Your task to perform on an android device: open a new tab in the chrome app Image 0: 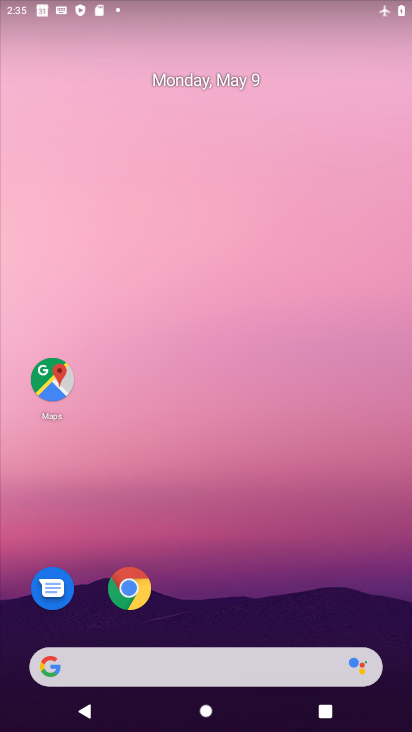
Step 0: drag from (347, 595) to (255, 94)
Your task to perform on an android device: open a new tab in the chrome app Image 1: 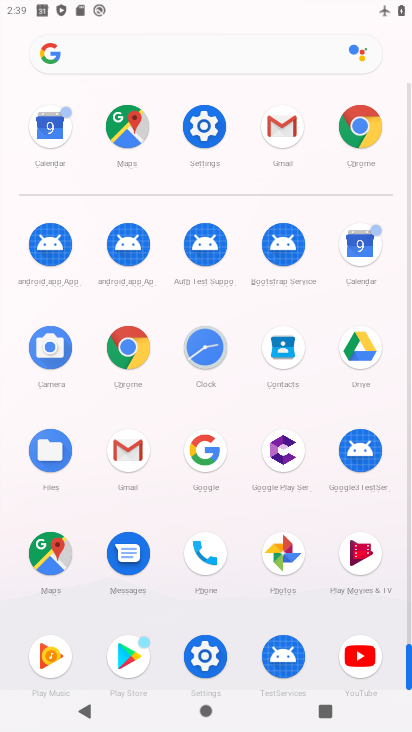
Step 1: click (374, 125)
Your task to perform on an android device: open a new tab in the chrome app Image 2: 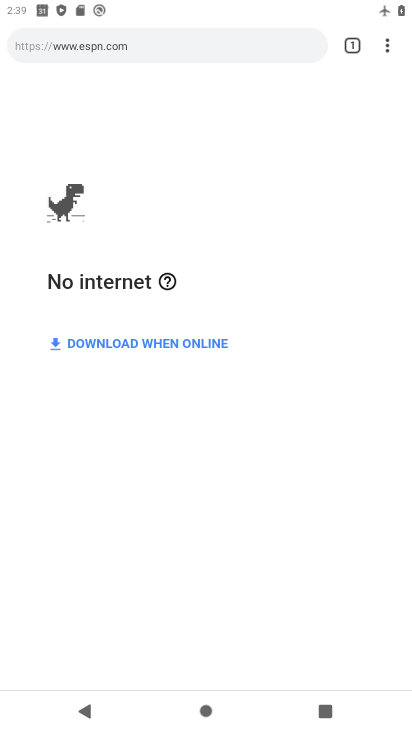
Step 2: click (386, 42)
Your task to perform on an android device: open a new tab in the chrome app Image 3: 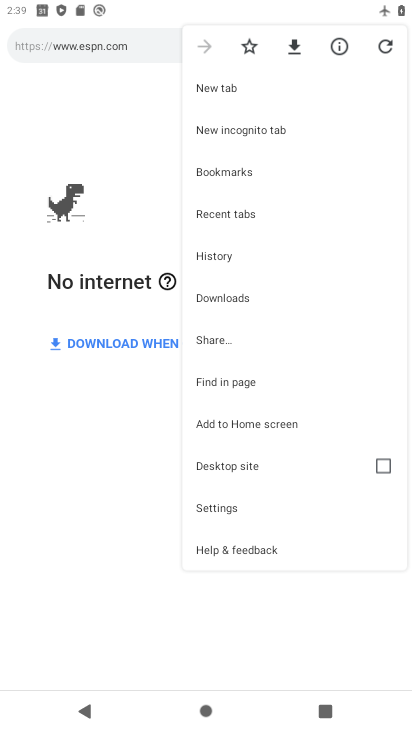
Step 3: click (312, 87)
Your task to perform on an android device: open a new tab in the chrome app Image 4: 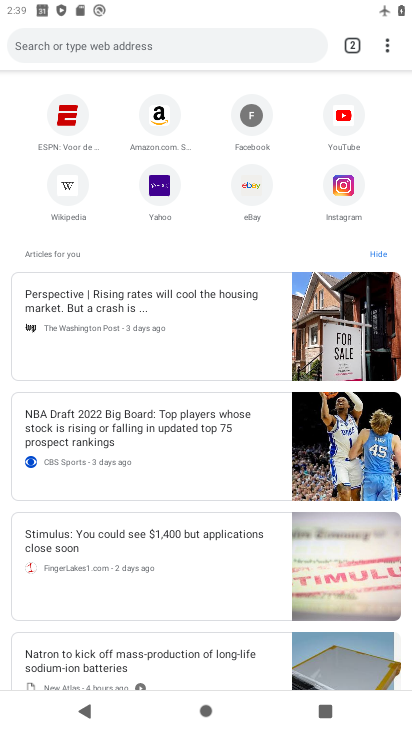
Step 4: task complete